Your task to perform on an android device: Go to internet settings Image 0: 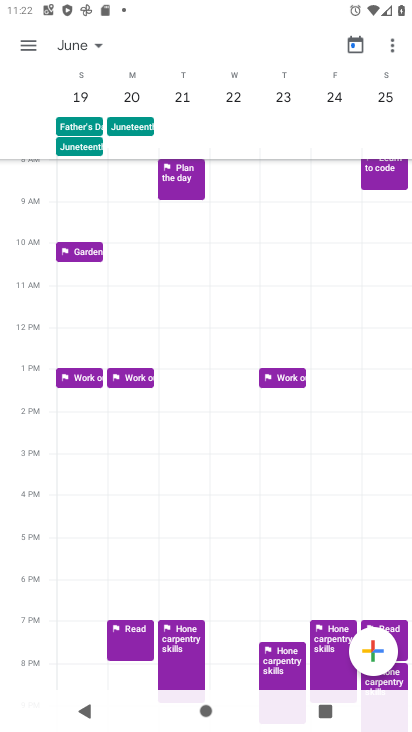
Step 0: press home button
Your task to perform on an android device: Go to internet settings Image 1: 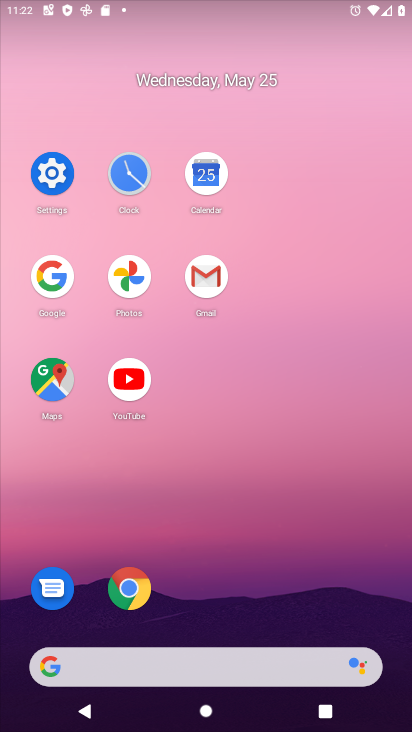
Step 1: click (53, 187)
Your task to perform on an android device: Go to internet settings Image 2: 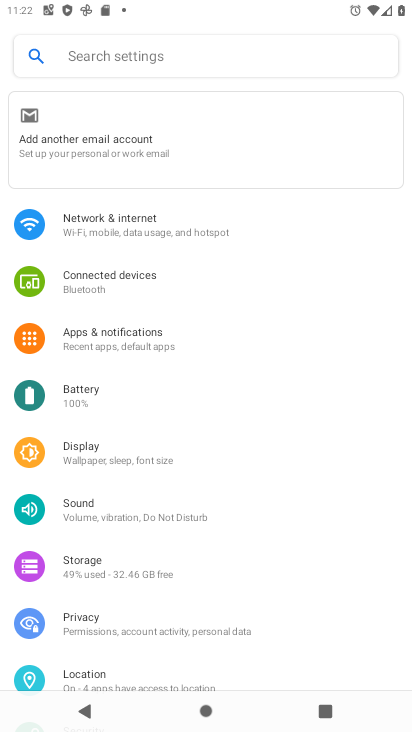
Step 2: click (169, 220)
Your task to perform on an android device: Go to internet settings Image 3: 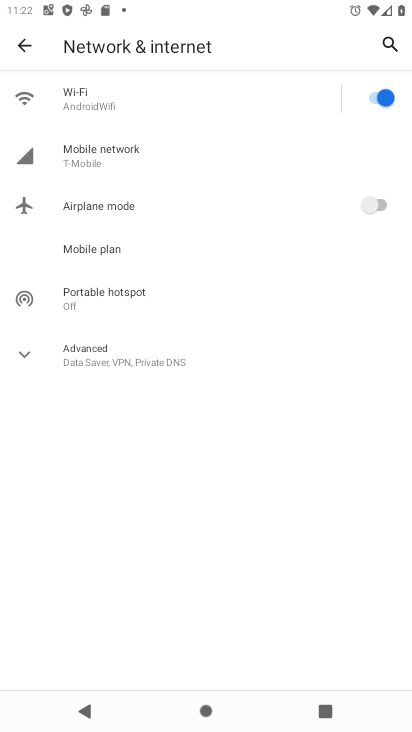
Step 3: task complete